Your task to perform on an android device: Go to wifi settings Image 0: 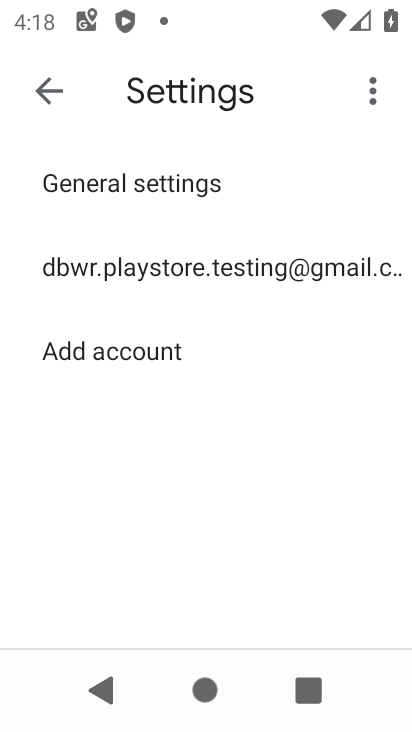
Step 0: task complete